Your task to perform on an android device: turn on improve location accuracy Image 0: 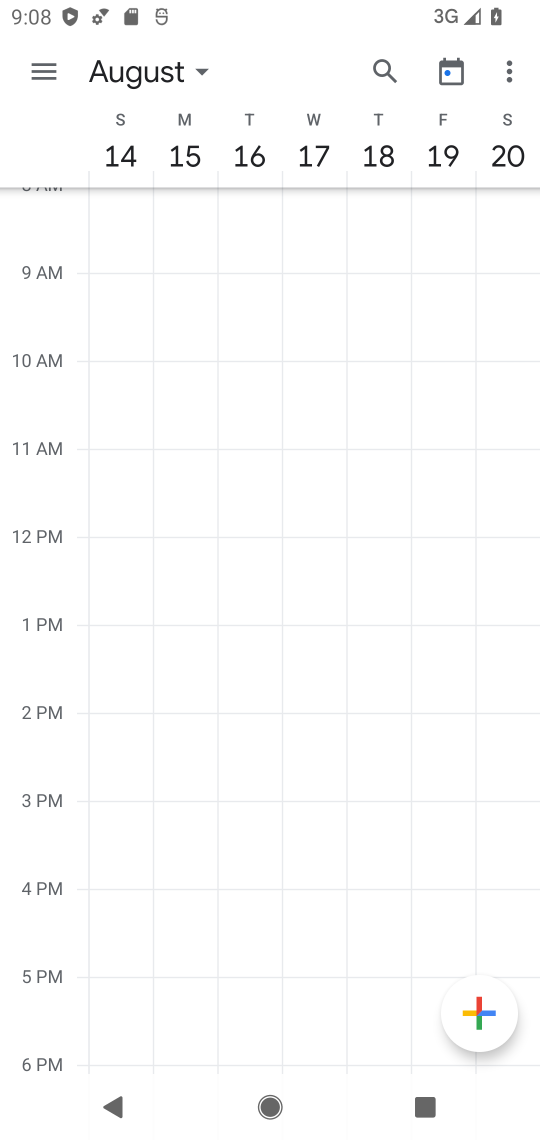
Step 0: press home button
Your task to perform on an android device: turn on improve location accuracy Image 1: 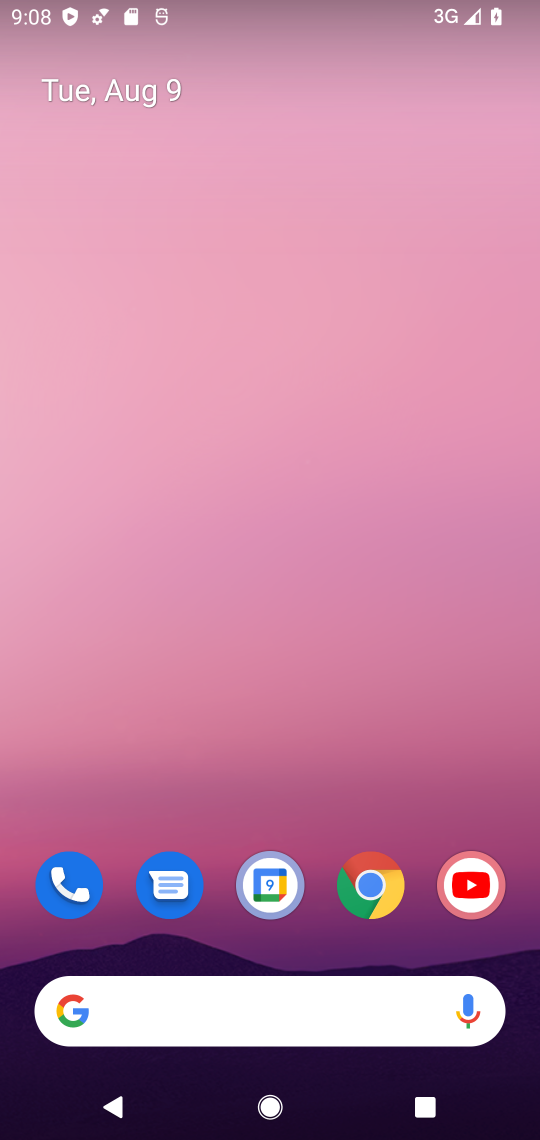
Step 1: drag from (288, 809) to (378, 114)
Your task to perform on an android device: turn on improve location accuracy Image 2: 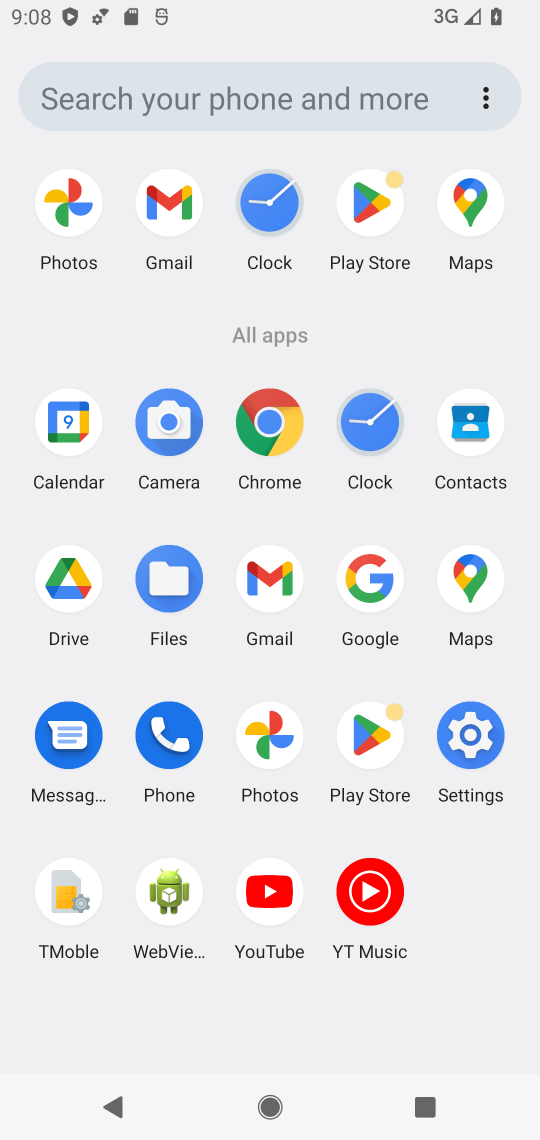
Step 2: click (466, 728)
Your task to perform on an android device: turn on improve location accuracy Image 3: 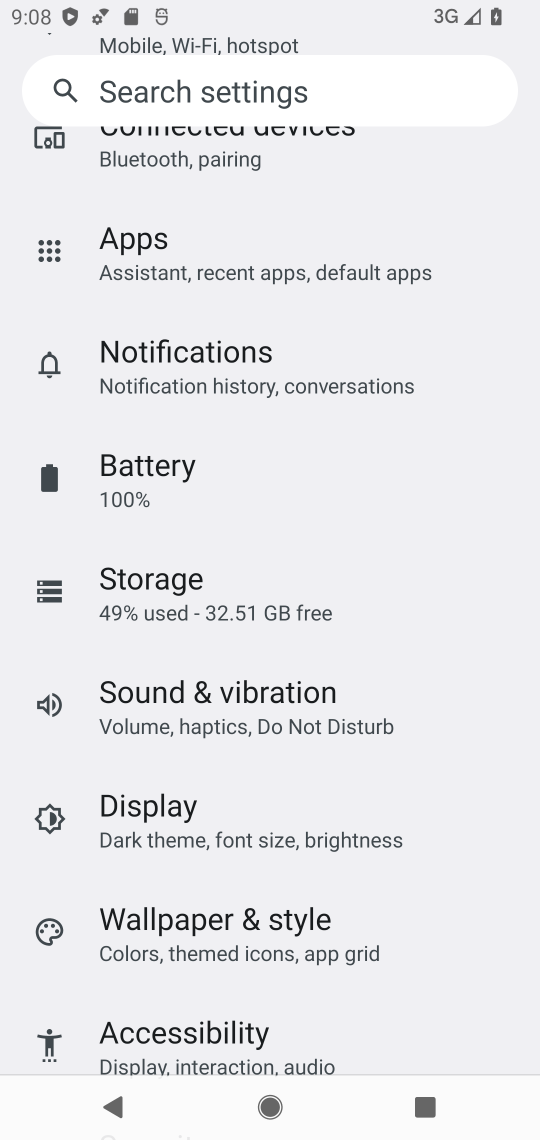
Step 3: drag from (248, 960) to (313, 382)
Your task to perform on an android device: turn on improve location accuracy Image 4: 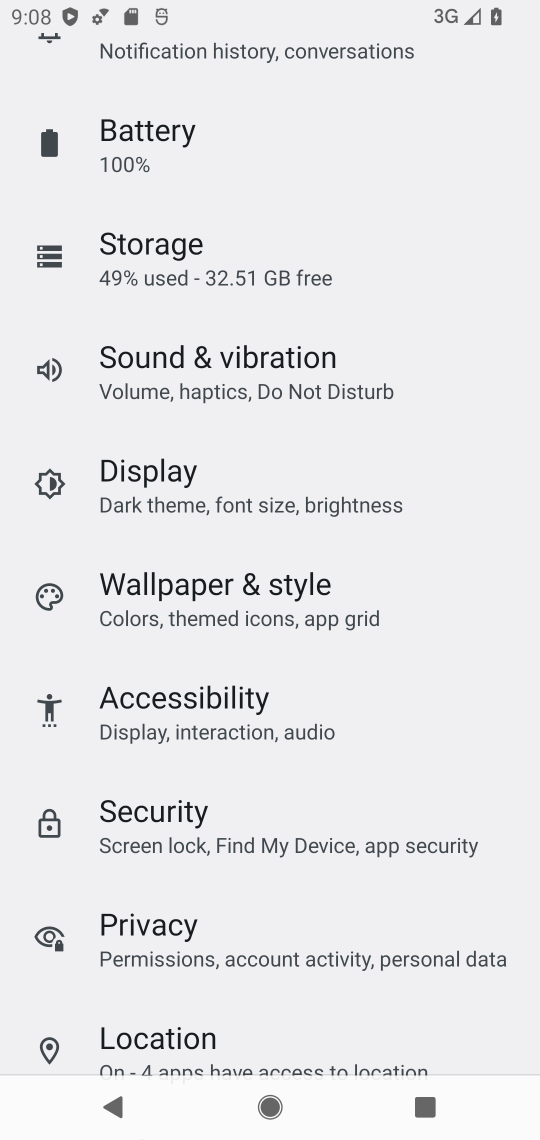
Step 4: click (231, 1029)
Your task to perform on an android device: turn on improve location accuracy Image 5: 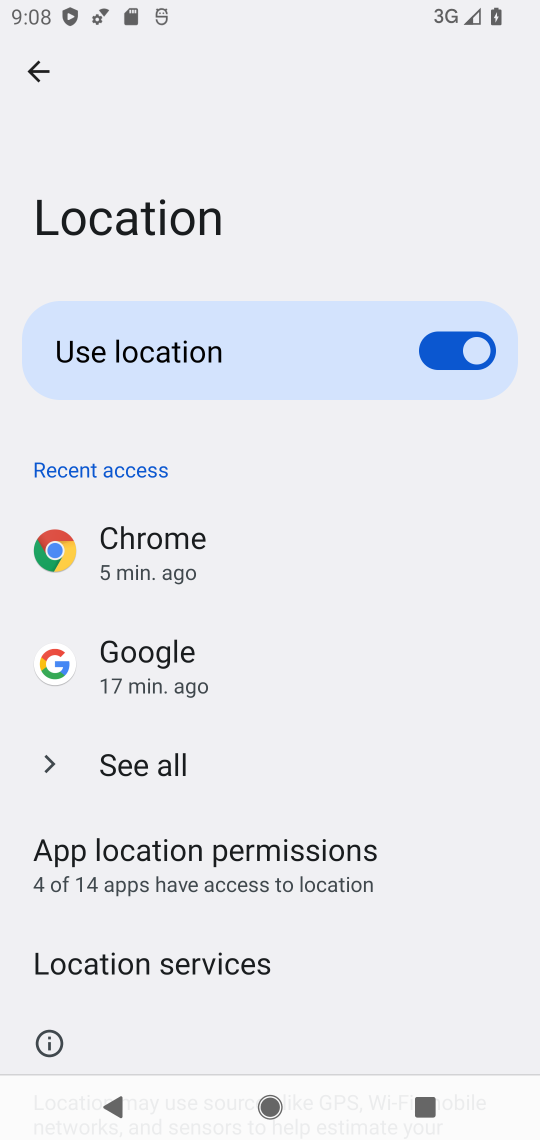
Step 5: click (243, 946)
Your task to perform on an android device: turn on improve location accuracy Image 6: 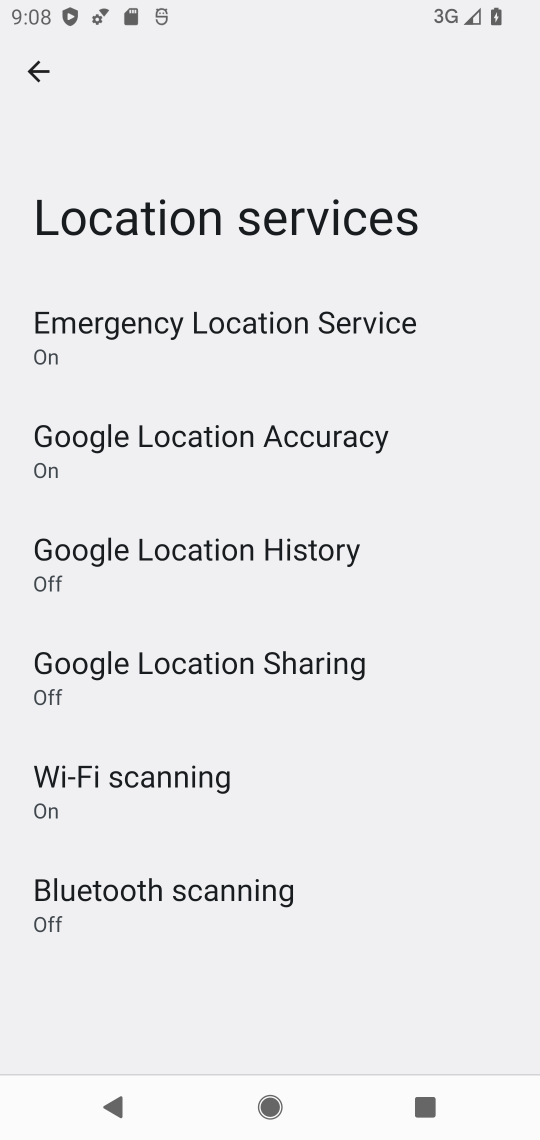
Step 6: click (286, 435)
Your task to perform on an android device: turn on improve location accuracy Image 7: 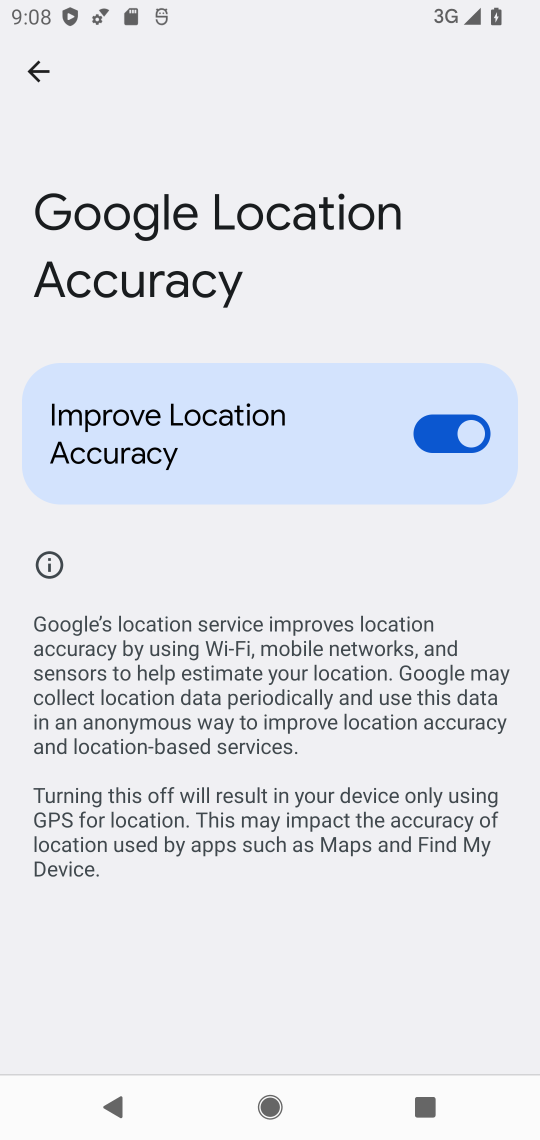
Step 7: task complete